Your task to perform on an android device: What's the latest video from GameSpot Trailers? Image 0: 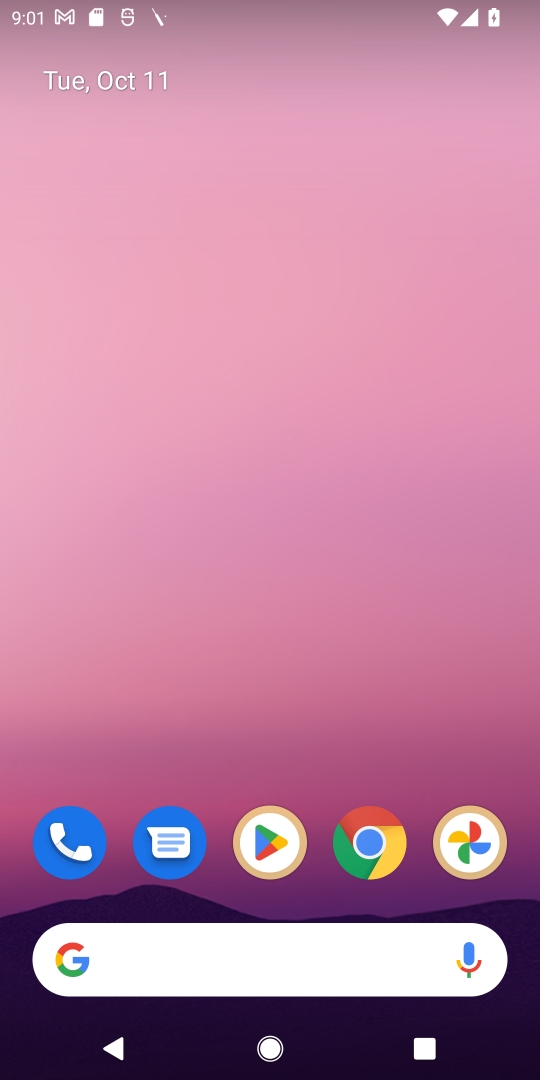
Step 0: click (376, 852)
Your task to perform on an android device: What's the latest video from GameSpot Trailers? Image 1: 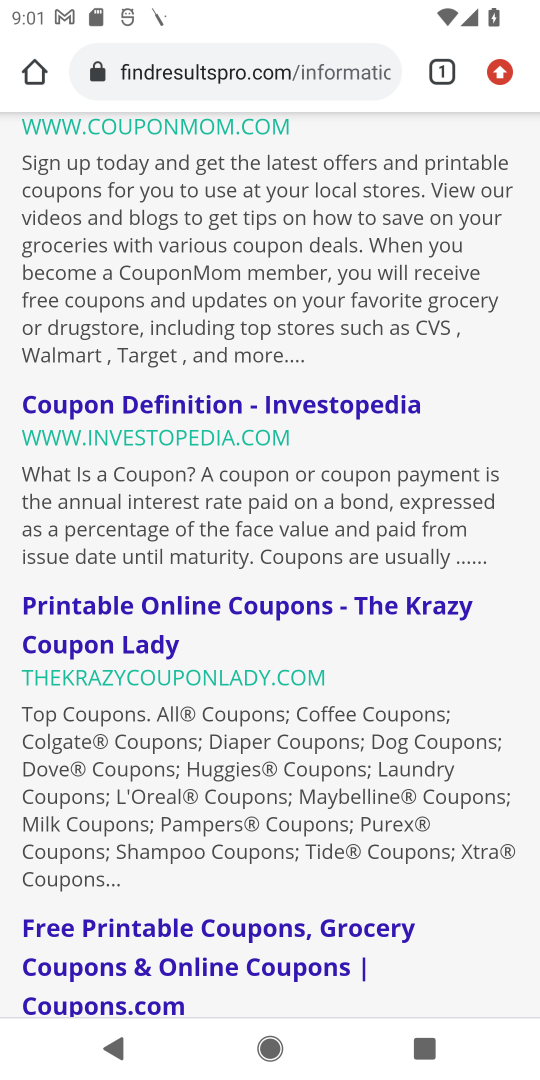
Step 1: click (194, 70)
Your task to perform on an android device: What's the latest video from GameSpot Trailers? Image 2: 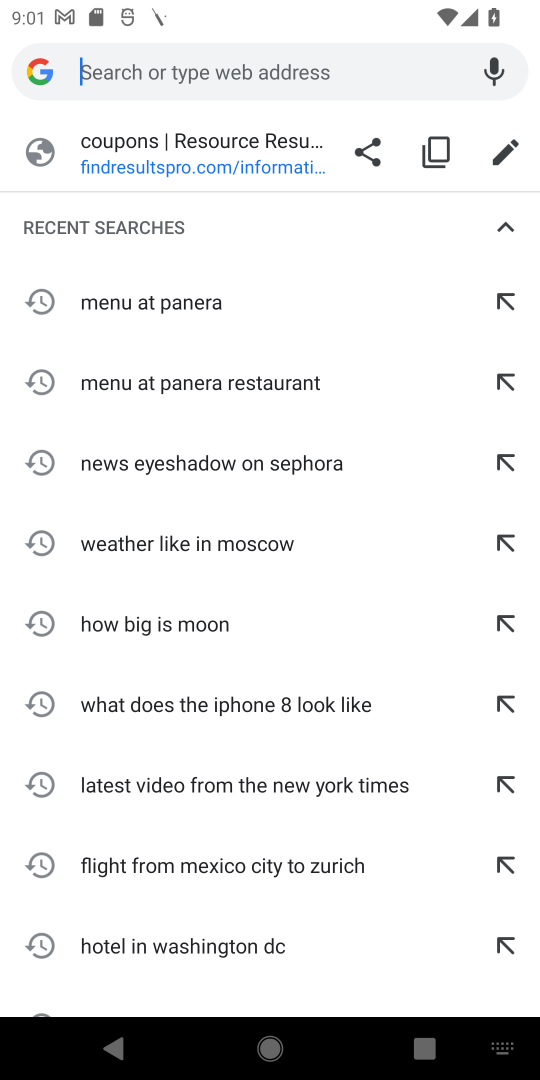
Step 2: type "latest video from gamespot trailers"
Your task to perform on an android device: What's the latest video from GameSpot Trailers? Image 3: 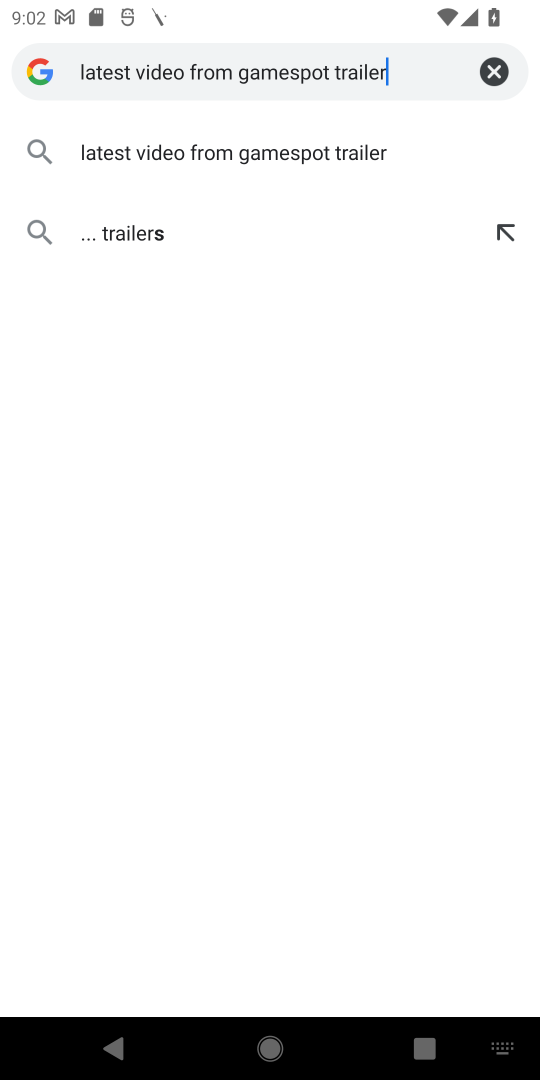
Step 3: type ""
Your task to perform on an android device: What's the latest video from GameSpot Trailers? Image 4: 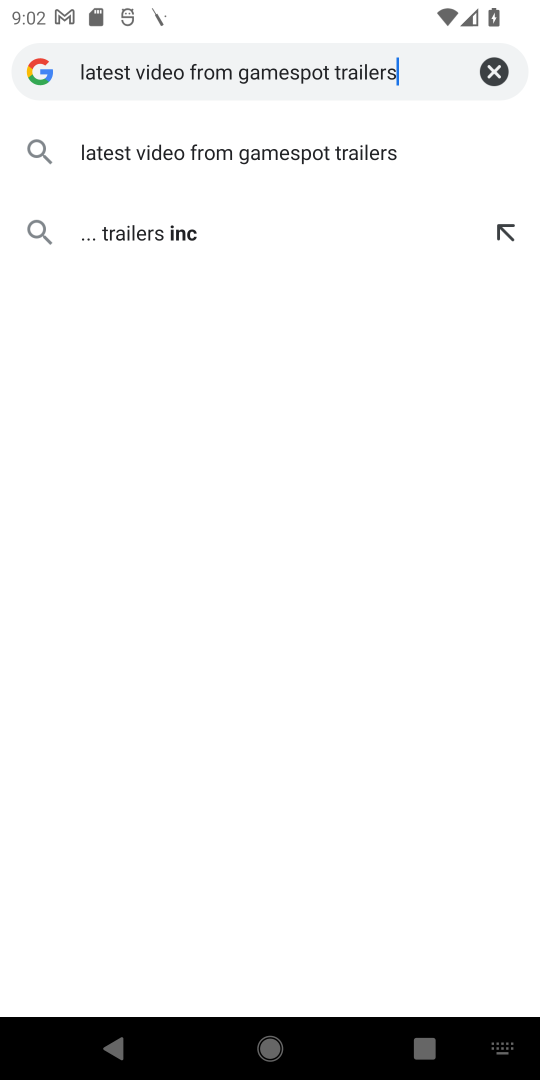
Step 4: click (274, 152)
Your task to perform on an android device: What's the latest video from GameSpot Trailers? Image 5: 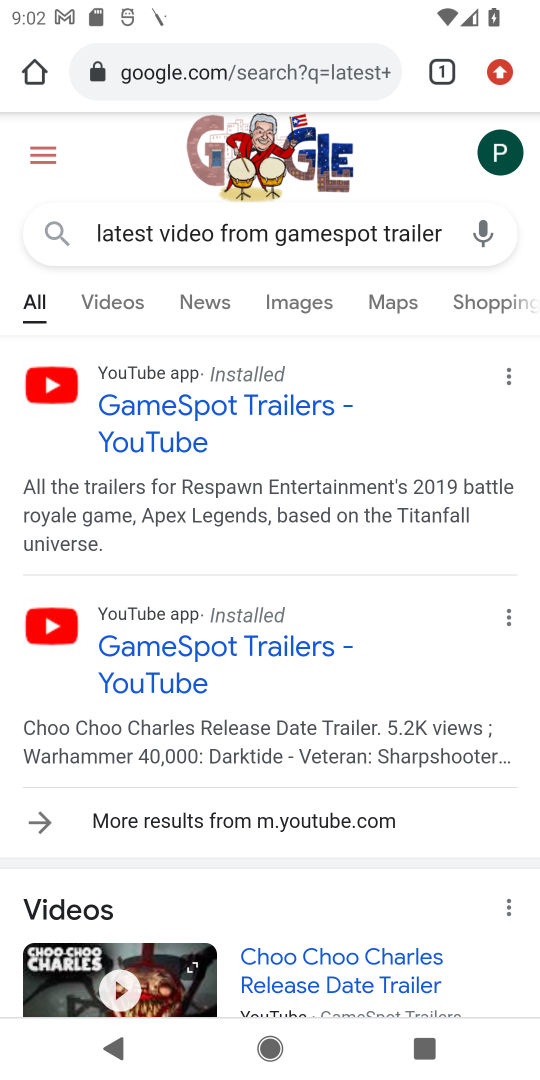
Step 5: click (197, 408)
Your task to perform on an android device: What's the latest video from GameSpot Trailers? Image 6: 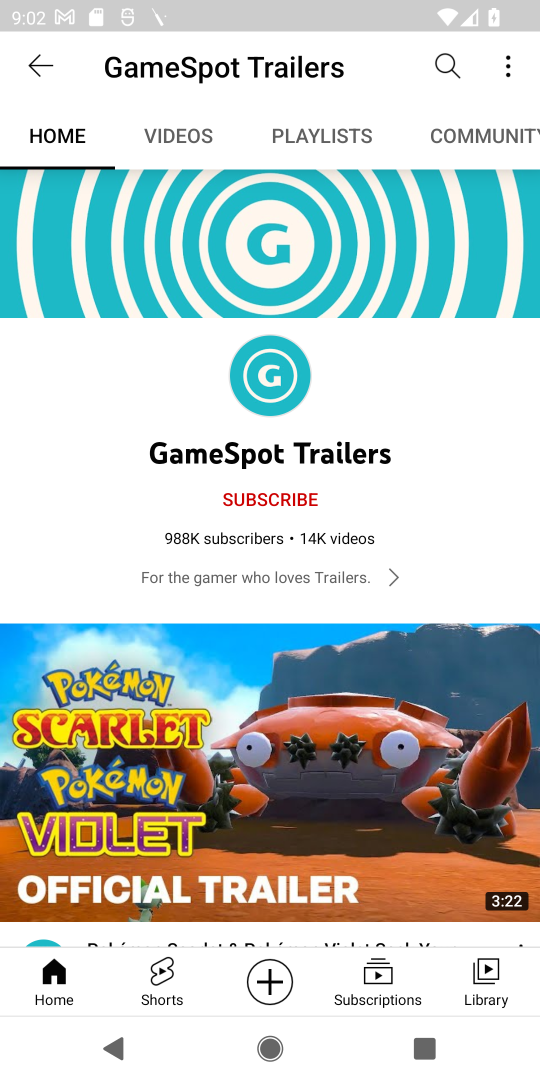
Step 6: drag from (218, 695) to (287, 256)
Your task to perform on an android device: What's the latest video from GameSpot Trailers? Image 7: 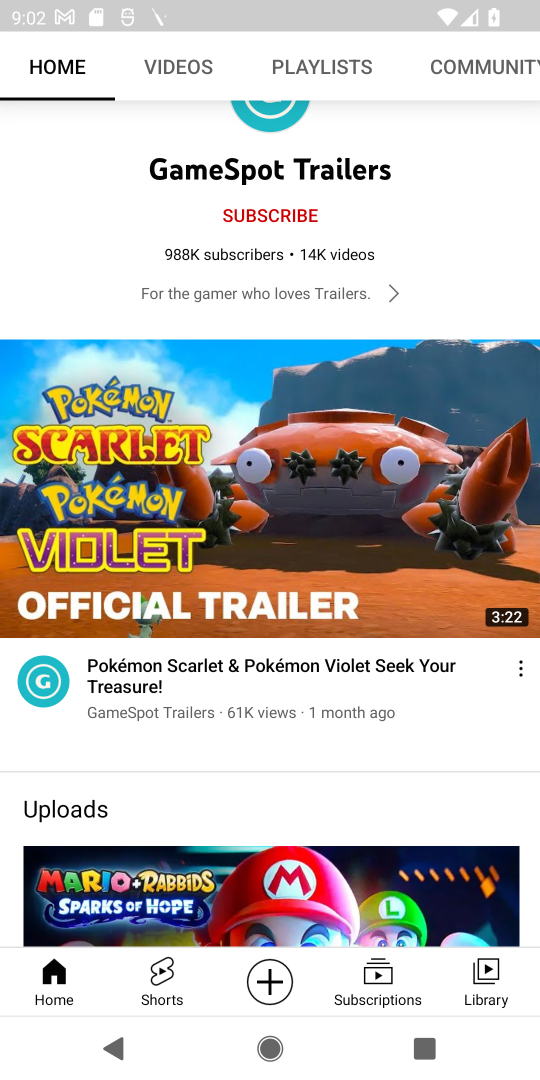
Step 7: click (180, 66)
Your task to perform on an android device: What's the latest video from GameSpot Trailers? Image 8: 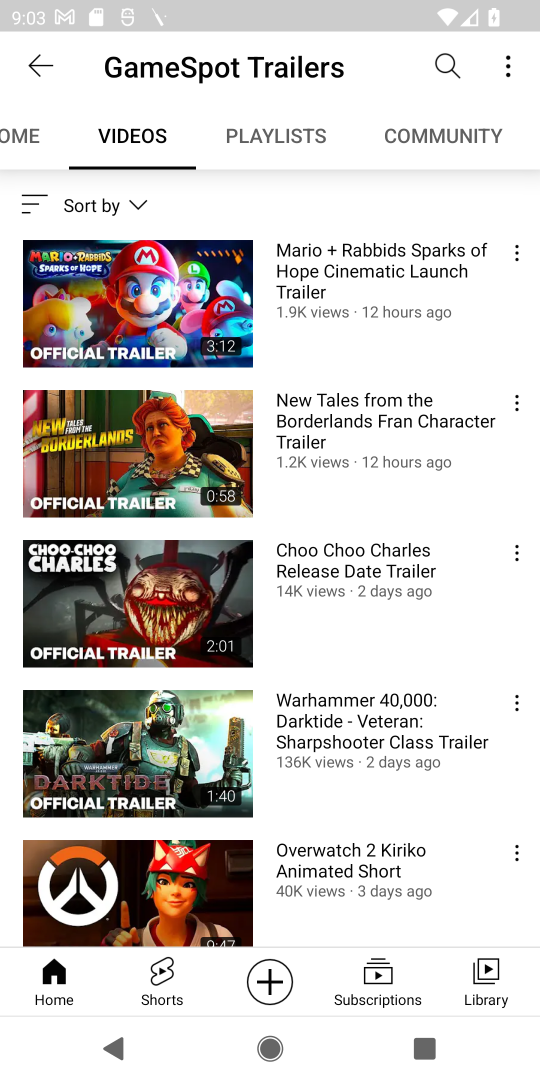
Step 8: task complete